Your task to perform on an android device: Open Android settings Image 0: 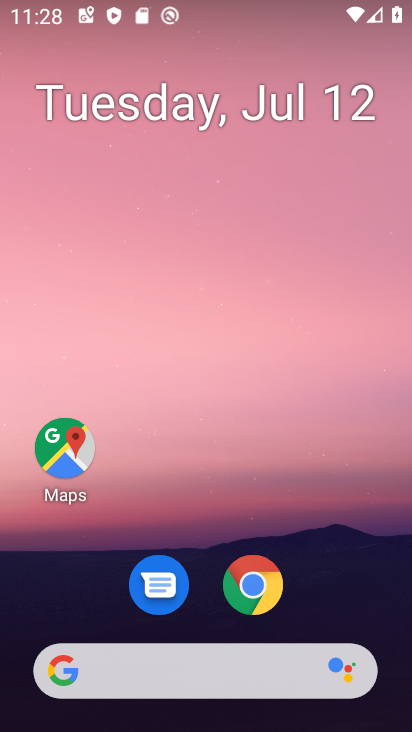
Step 0: drag from (246, 459) to (292, 29)
Your task to perform on an android device: Open Android settings Image 1: 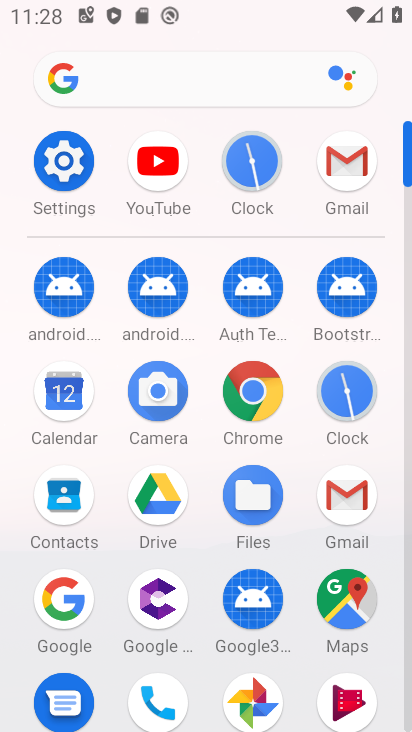
Step 1: click (68, 165)
Your task to perform on an android device: Open Android settings Image 2: 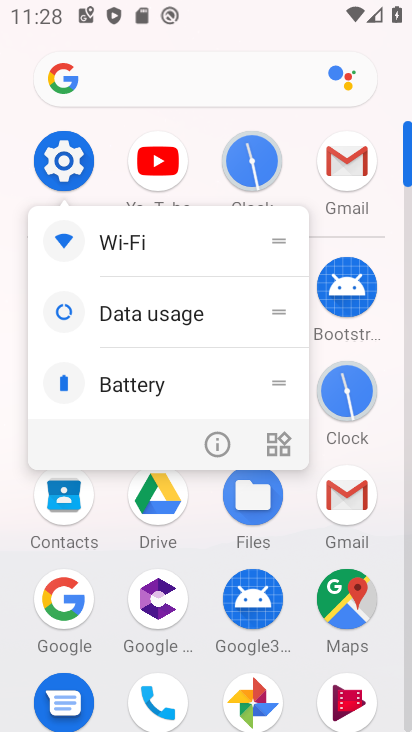
Step 2: click (74, 162)
Your task to perform on an android device: Open Android settings Image 3: 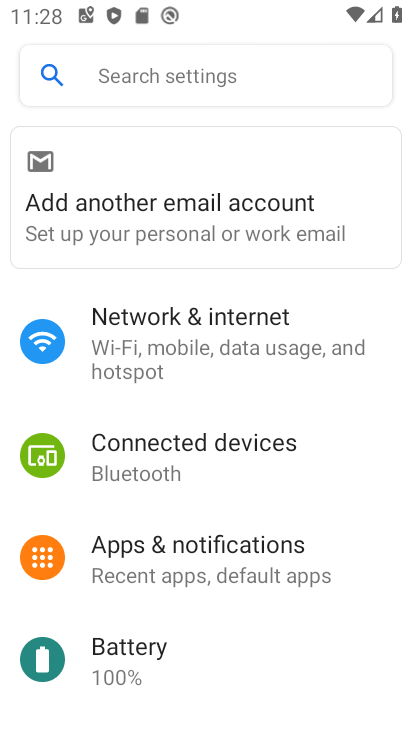
Step 3: drag from (219, 618) to (214, 117)
Your task to perform on an android device: Open Android settings Image 4: 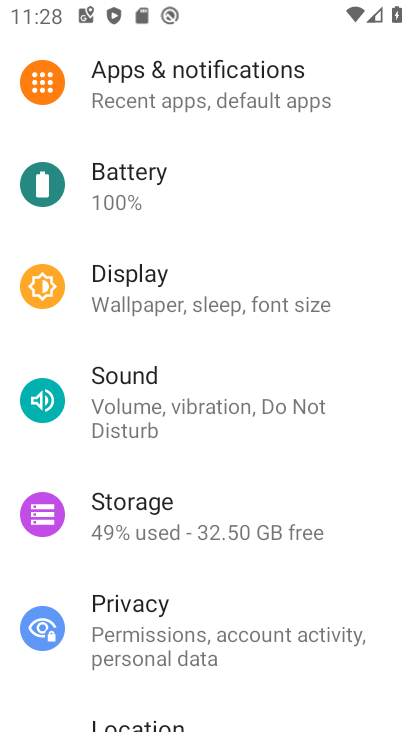
Step 4: drag from (230, 694) to (250, 53)
Your task to perform on an android device: Open Android settings Image 5: 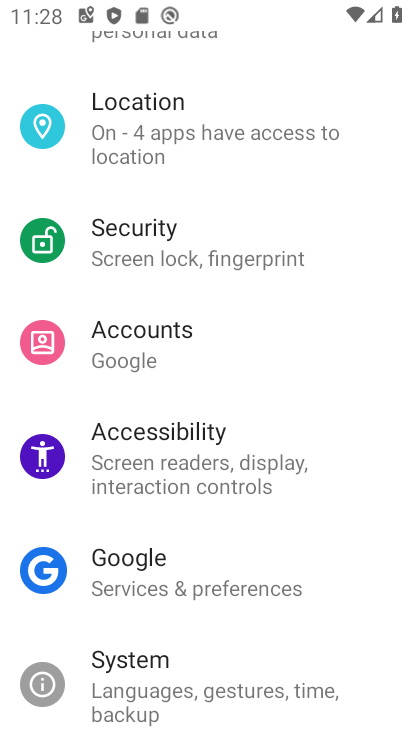
Step 5: drag from (247, 544) to (253, 101)
Your task to perform on an android device: Open Android settings Image 6: 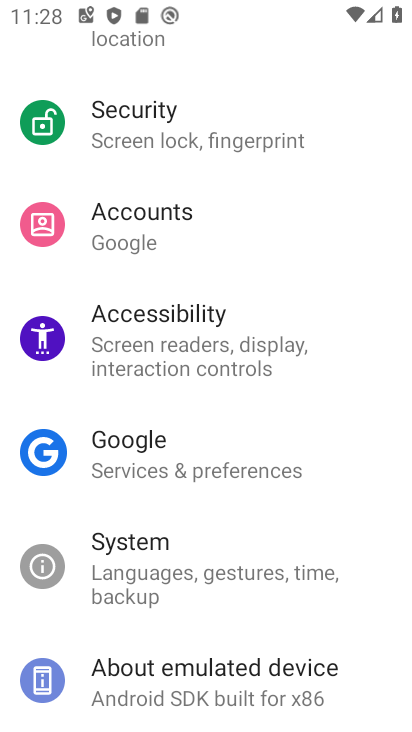
Step 6: click (262, 680)
Your task to perform on an android device: Open Android settings Image 7: 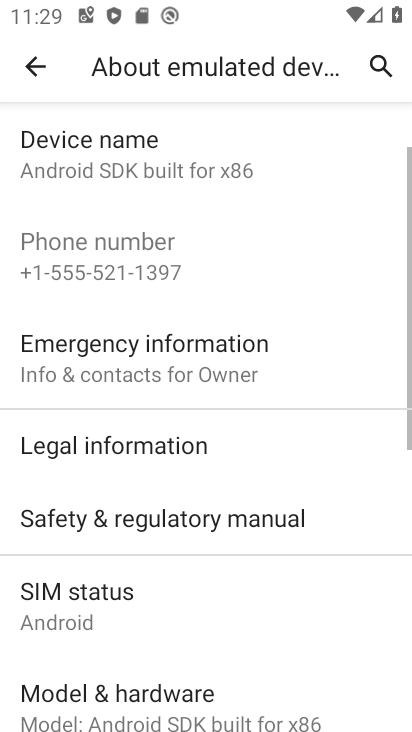
Step 7: task complete